Your task to perform on an android device: When is my next meeting? Image 0: 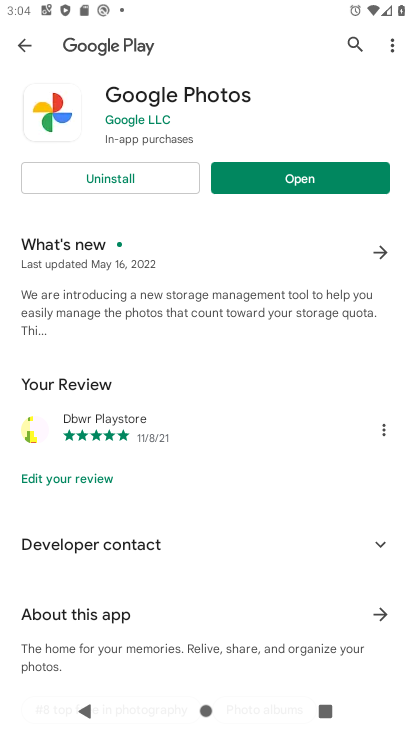
Step 0: press home button
Your task to perform on an android device: When is my next meeting? Image 1: 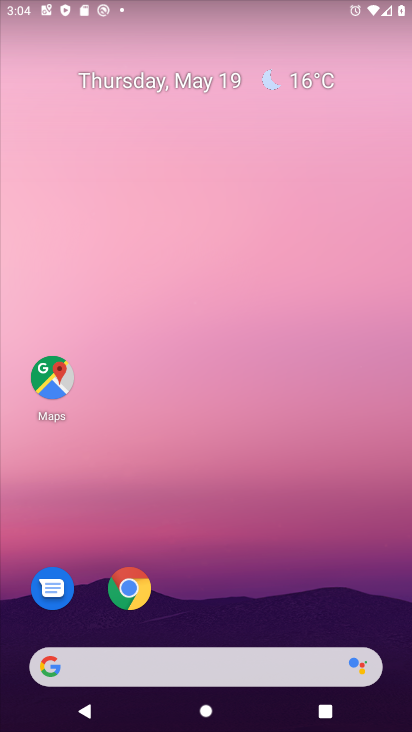
Step 1: drag from (236, 587) to (280, 158)
Your task to perform on an android device: When is my next meeting? Image 2: 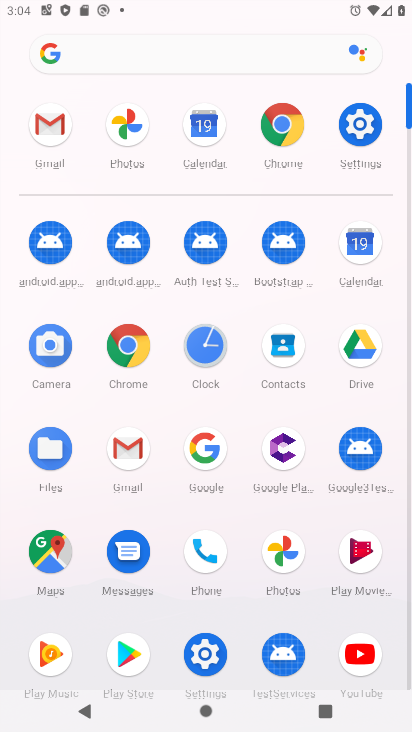
Step 2: click (367, 253)
Your task to perform on an android device: When is my next meeting? Image 3: 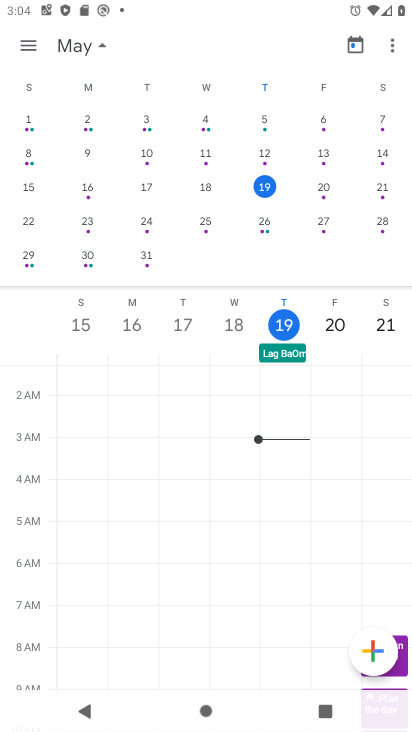
Step 3: task complete